Your task to perform on an android device: Is it going to rain tomorrow? Image 0: 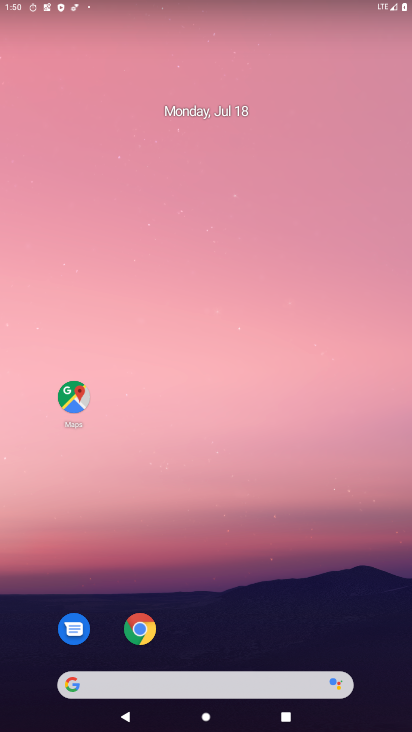
Step 0: click (198, 682)
Your task to perform on an android device: Is it going to rain tomorrow? Image 1: 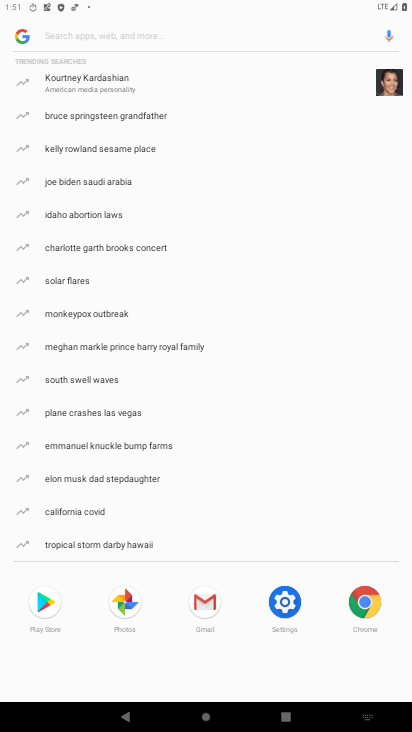
Step 1: press back button
Your task to perform on an android device: Is it going to rain tomorrow? Image 2: 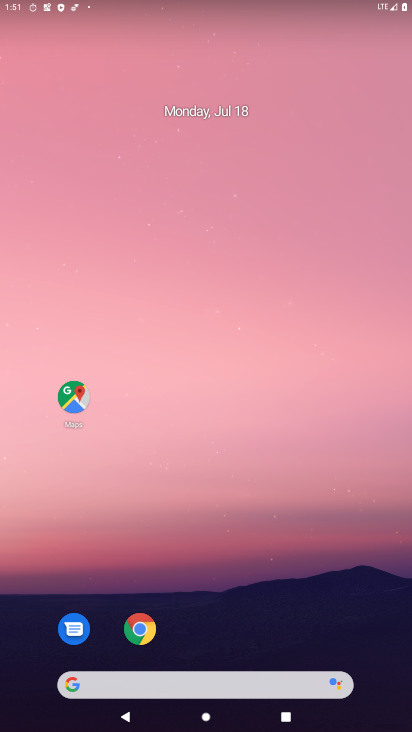
Step 2: click (185, 681)
Your task to perform on an android device: Is it going to rain tomorrow? Image 3: 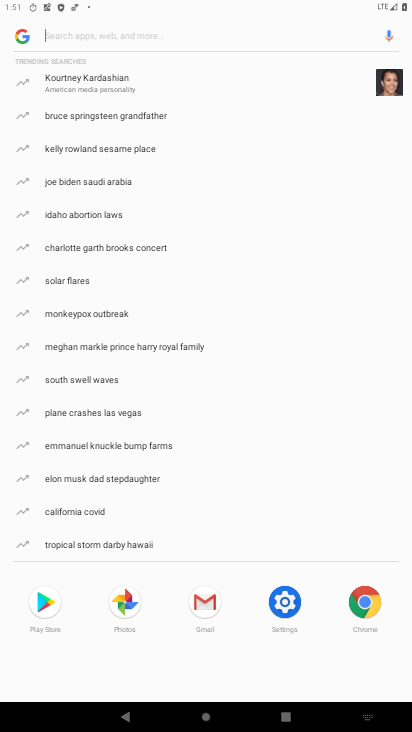
Step 3: click (93, 32)
Your task to perform on an android device: Is it going to rain tomorrow? Image 4: 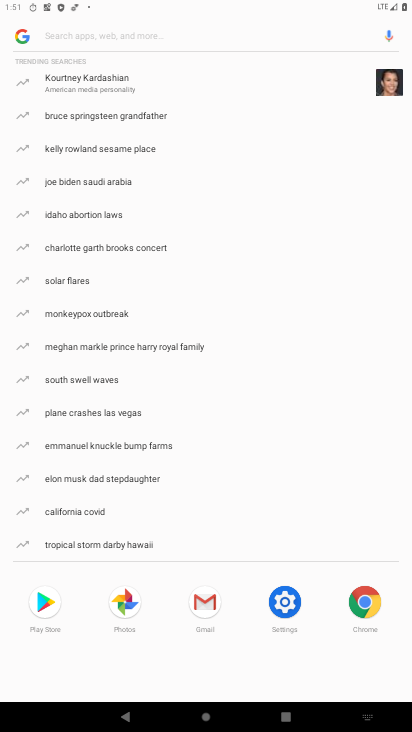
Step 4: type "Is it going to rain tomorrow?"
Your task to perform on an android device: Is it going to rain tomorrow? Image 5: 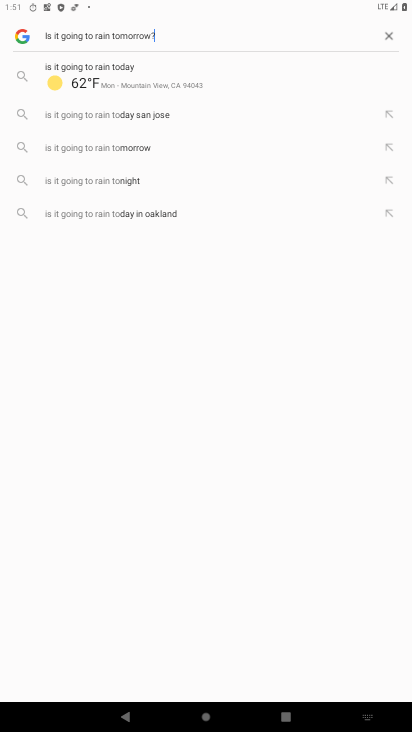
Step 5: type ""
Your task to perform on an android device: Is it going to rain tomorrow? Image 6: 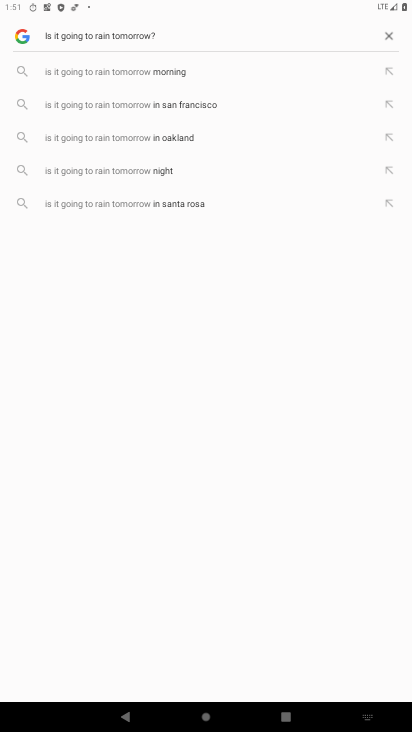
Step 6: click (123, 77)
Your task to perform on an android device: Is it going to rain tomorrow? Image 7: 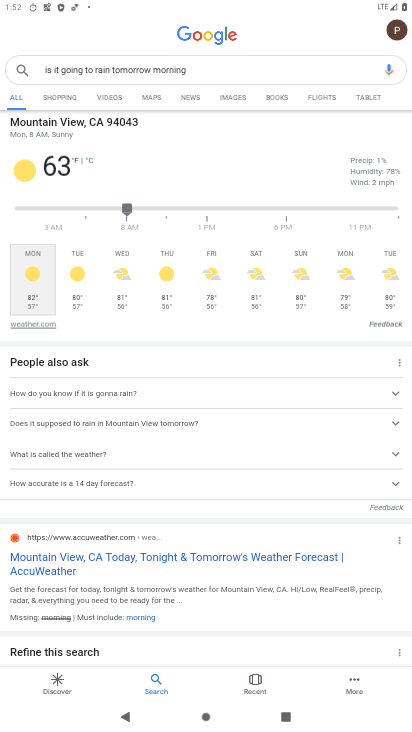
Step 7: click (83, 277)
Your task to perform on an android device: Is it going to rain tomorrow? Image 8: 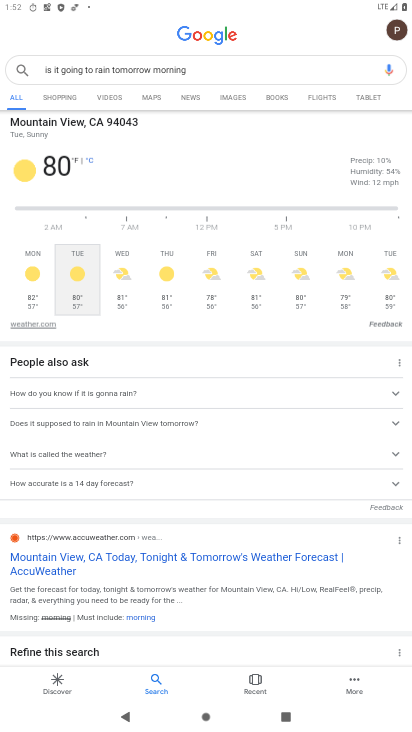
Step 8: task complete